Your task to perform on an android device: Search for Italian restaurants on Maps Image 0: 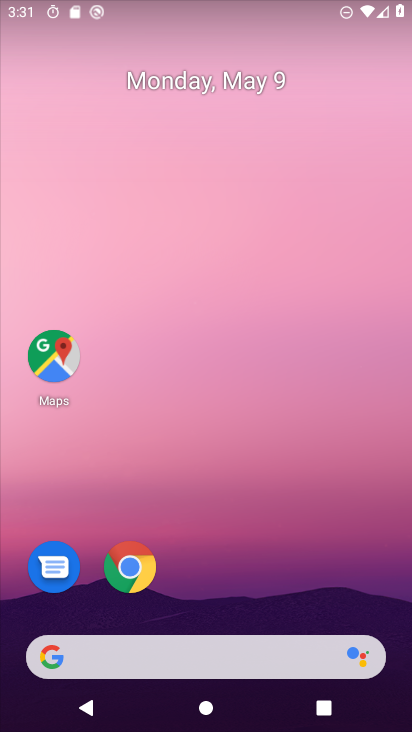
Step 0: click (52, 353)
Your task to perform on an android device: Search for Italian restaurants on Maps Image 1: 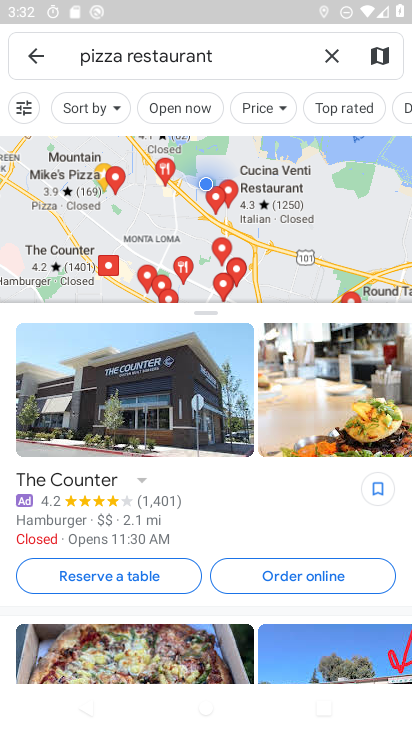
Step 1: click (337, 48)
Your task to perform on an android device: Search for Italian restaurants on Maps Image 2: 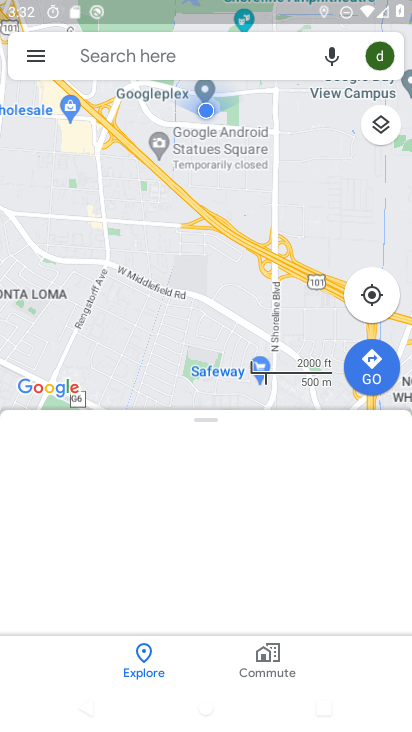
Step 2: click (149, 55)
Your task to perform on an android device: Search for Italian restaurants on Maps Image 3: 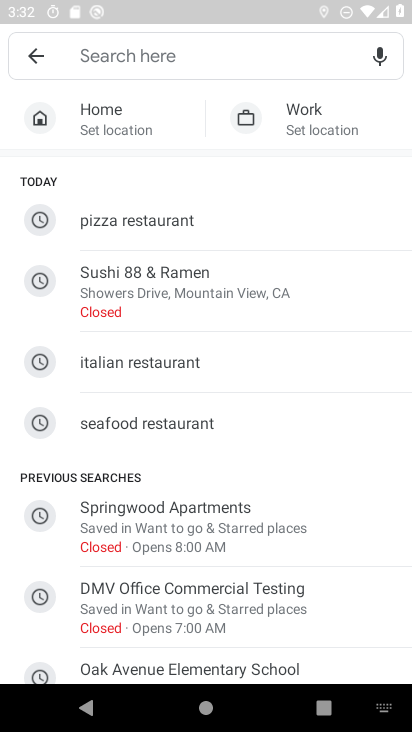
Step 3: click (159, 361)
Your task to perform on an android device: Search for Italian restaurants on Maps Image 4: 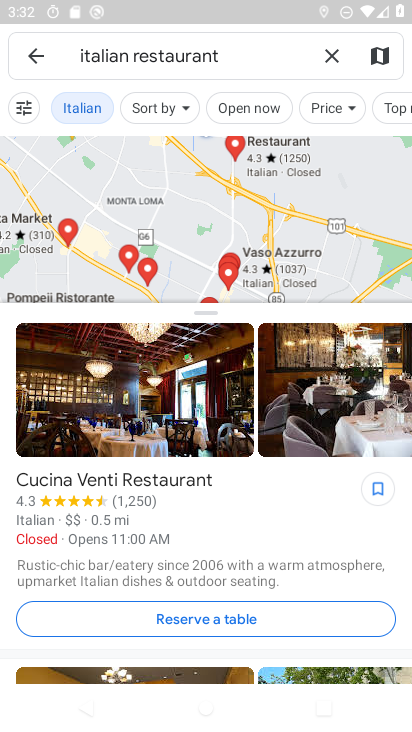
Step 4: task complete